Your task to perform on an android device: add a contact in the contacts app Image 0: 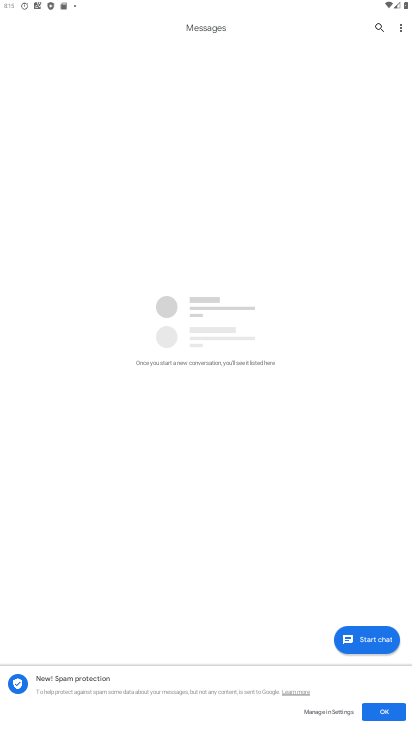
Step 0: drag from (159, 613) to (150, 112)
Your task to perform on an android device: add a contact in the contacts app Image 1: 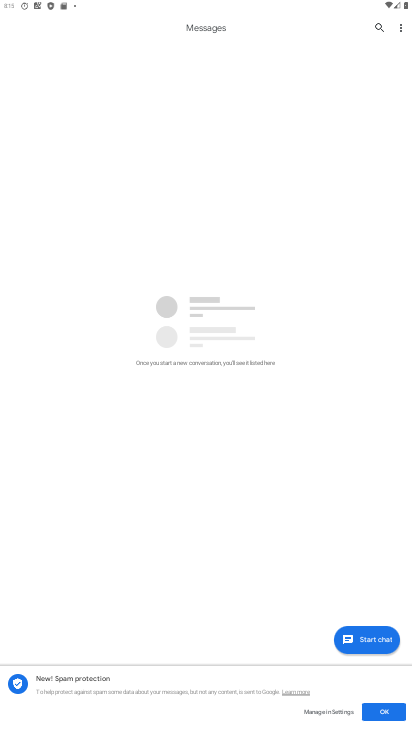
Step 1: click (206, 514)
Your task to perform on an android device: add a contact in the contacts app Image 2: 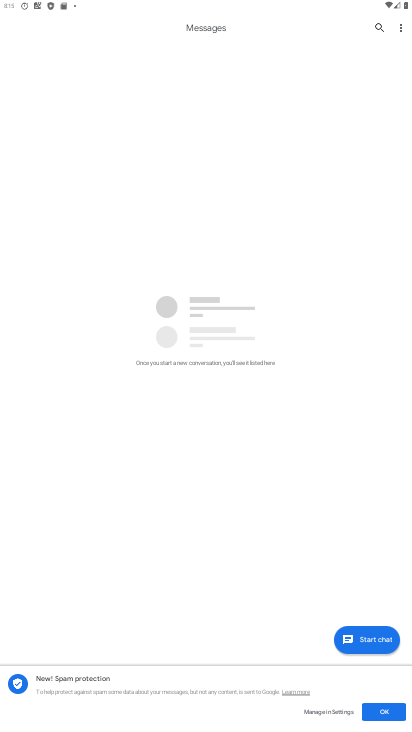
Step 2: drag from (168, 570) to (172, 395)
Your task to perform on an android device: add a contact in the contacts app Image 3: 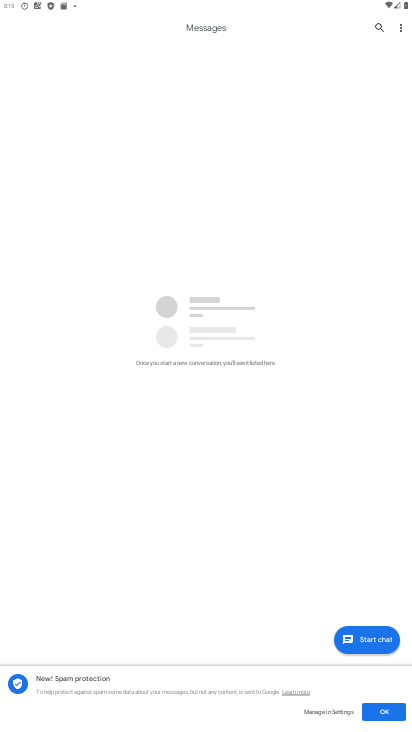
Step 3: drag from (201, 623) to (246, 216)
Your task to perform on an android device: add a contact in the contacts app Image 4: 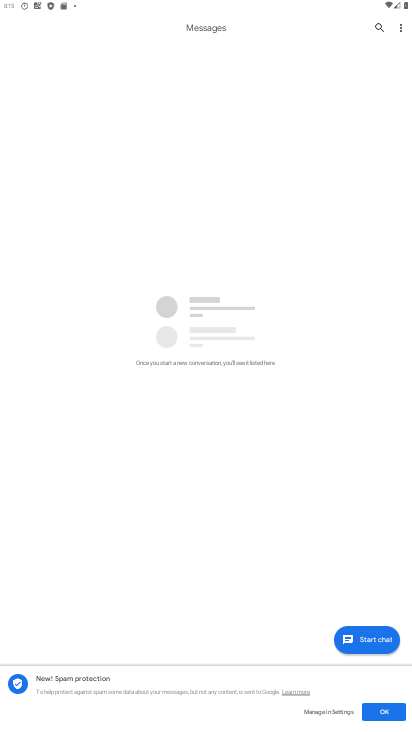
Step 4: drag from (162, 448) to (145, 210)
Your task to perform on an android device: add a contact in the contacts app Image 5: 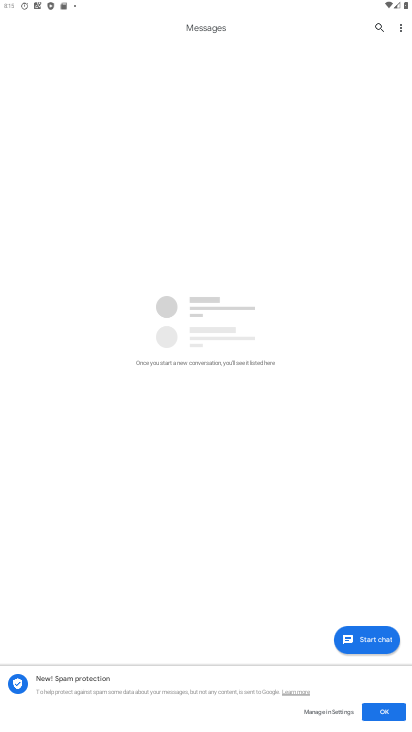
Step 5: press home button
Your task to perform on an android device: add a contact in the contacts app Image 6: 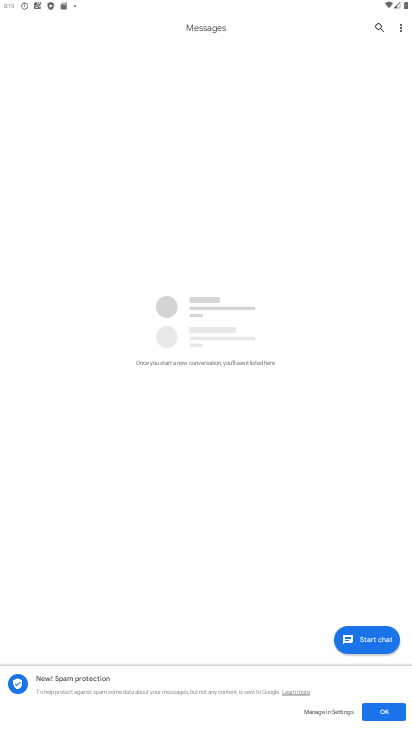
Step 6: press home button
Your task to perform on an android device: add a contact in the contacts app Image 7: 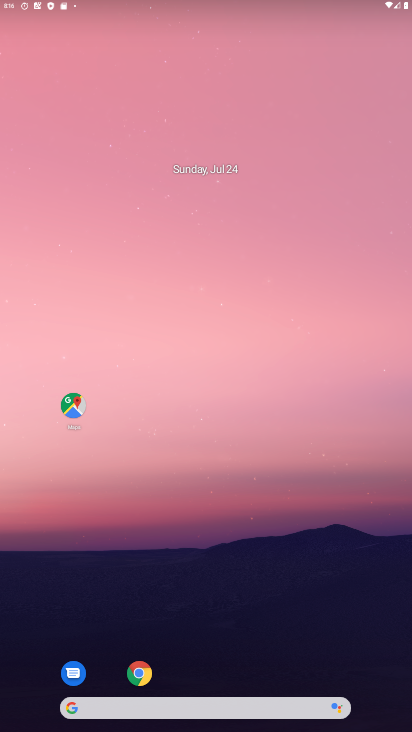
Step 7: drag from (240, 579) to (285, 252)
Your task to perform on an android device: add a contact in the contacts app Image 8: 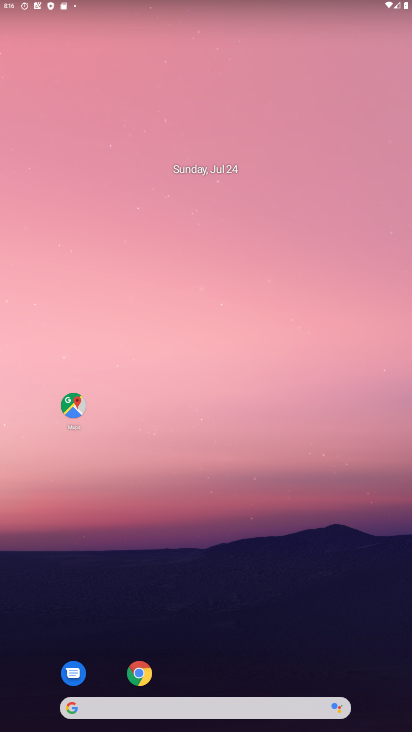
Step 8: drag from (179, 680) to (183, 0)
Your task to perform on an android device: add a contact in the contacts app Image 9: 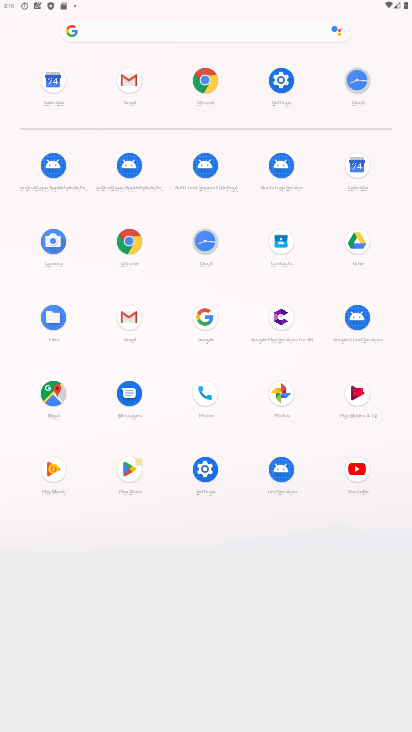
Step 9: click (282, 234)
Your task to perform on an android device: add a contact in the contacts app Image 10: 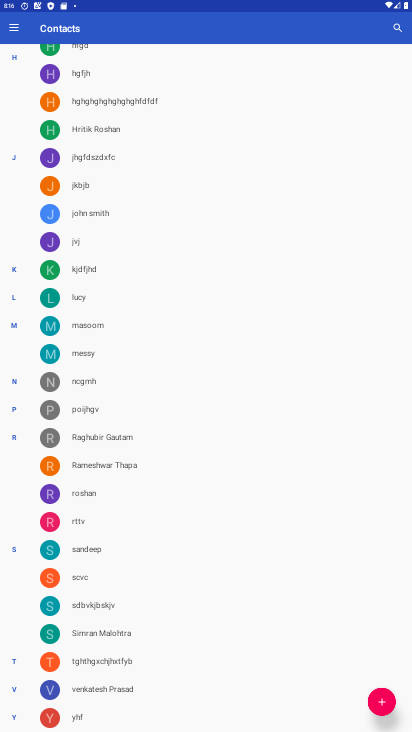
Step 10: drag from (221, 612) to (201, 340)
Your task to perform on an android device: add a contact in the contacts app Image 11: 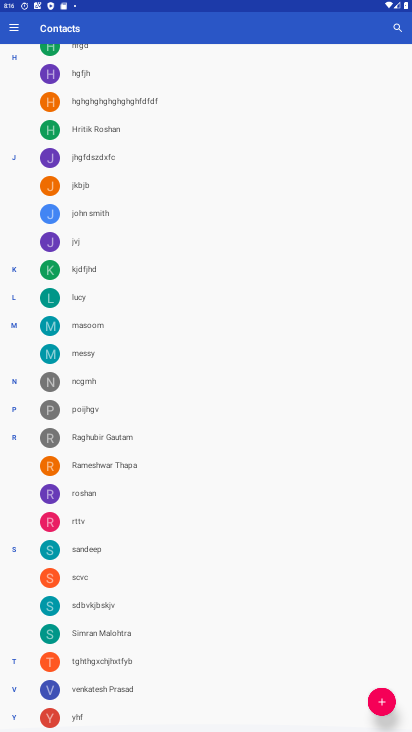
Step 11: drag from (213, 124) to (190, 728)
Your task to perform on an android device: add a contact in the contacts app Image 12: 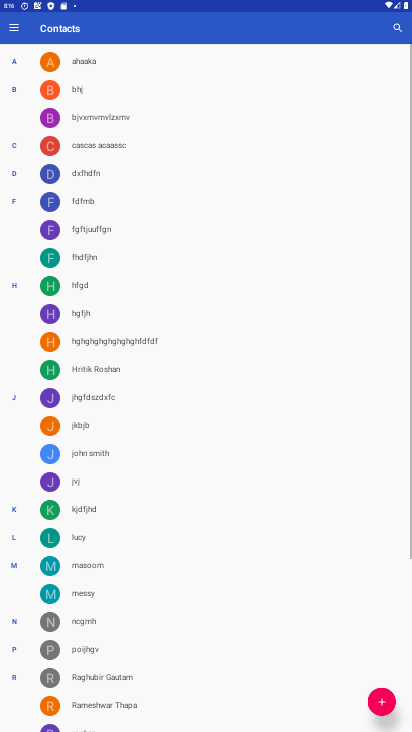
Step 12: drag from (183, 85) to (164, 606)
Your task to perform on an android device: add a contact in the contacts app Image 13: 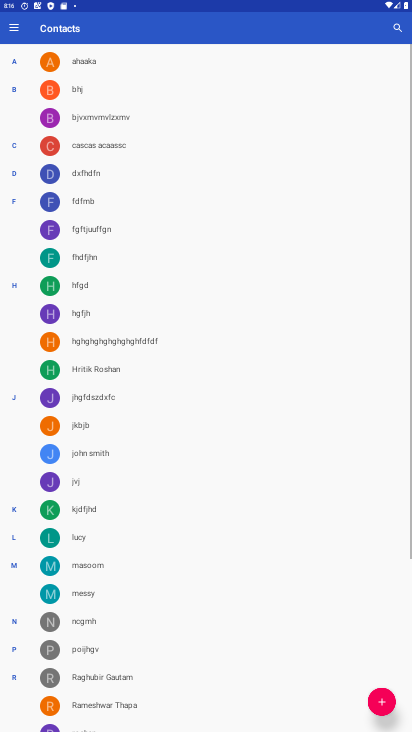
Step 13: drag from (199, 118) to (160, 533)
Your task to perform on an android device: add a contact in the contacts app Image 14: 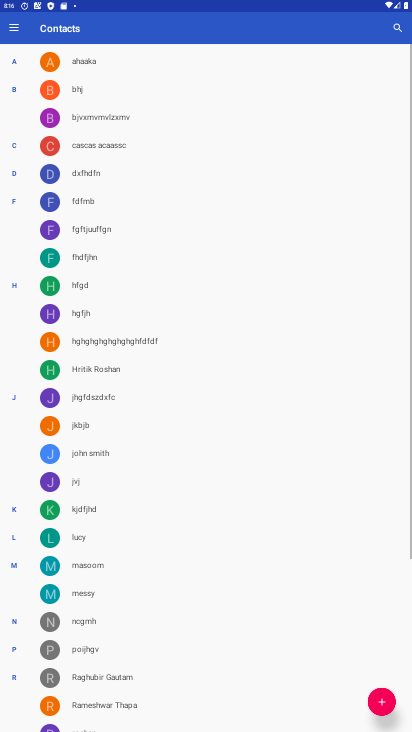
Step 14: drag from (221, 618) to (211, 274)
Your task to perform on an android device: add a contact in the contacts app Image 15: 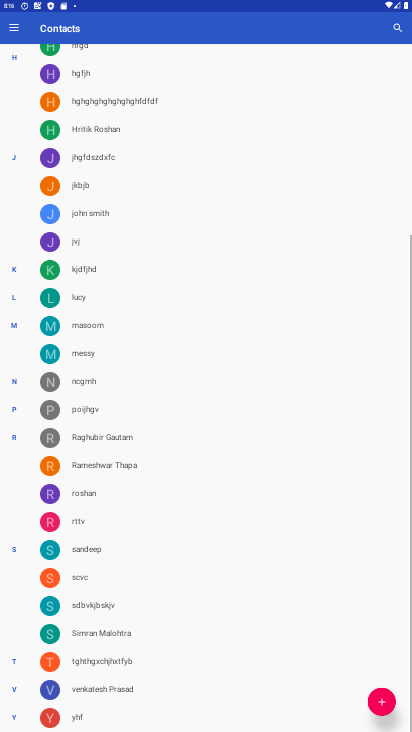
Step 15: drag from (216, 155) to (349, 724)
Your task to perform on an android device: add a contact in the contacts app Image 16: 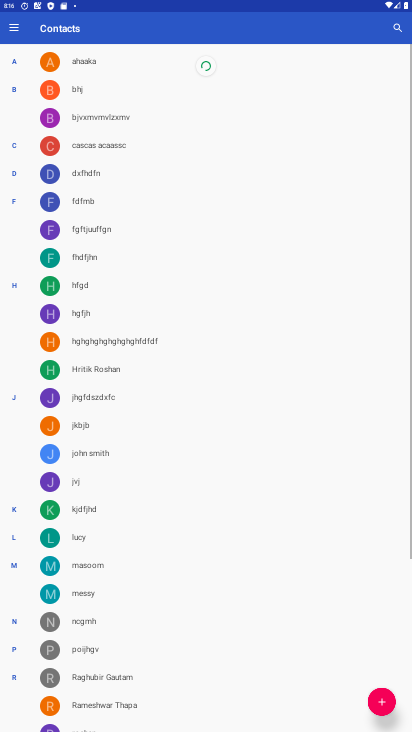
Step 16: drag from (206, 514) to (239, 172)
Your task to perform on an android device: add a contact in the contacts app Image 17: 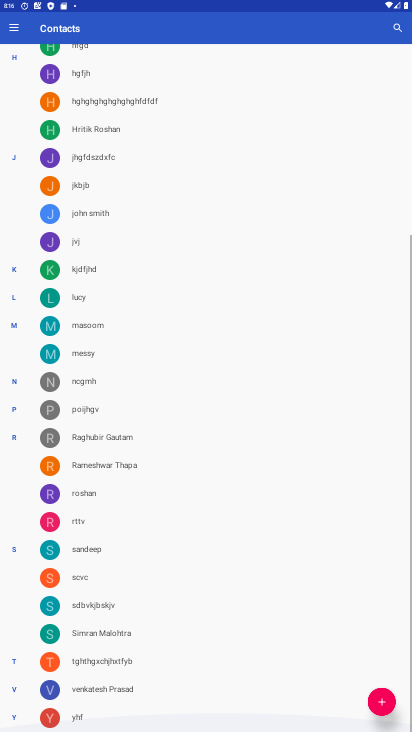
Step 17: drag from (243, 157) to (333, 731)
Your task to perform on an android device: add a contact in the contacts app Image 18: 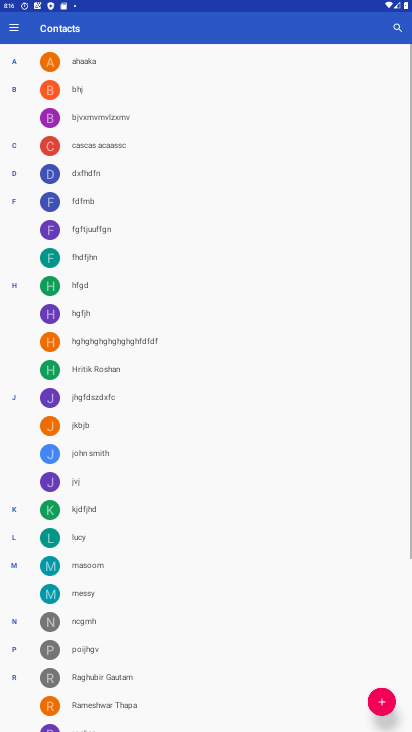
Step 18: drag from (162, 218) to (235, 679)
Your task to perform on an android device: add a contact in the contacts app Image 19: 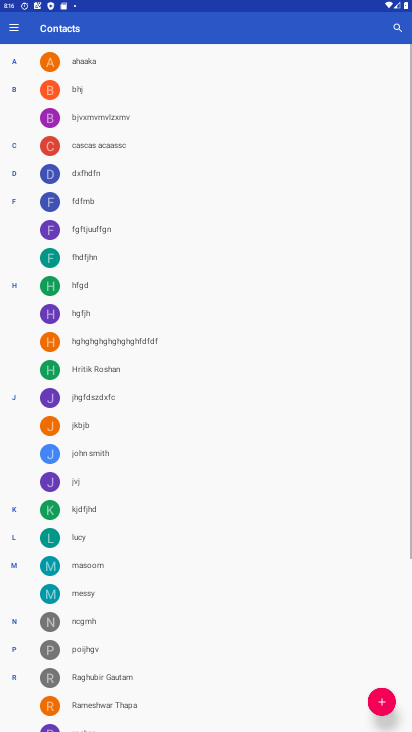
Step 19: drag from (149, 121) to (152, 619)
Your task to perform on an android device: add a contact in the contacts app Image 20: 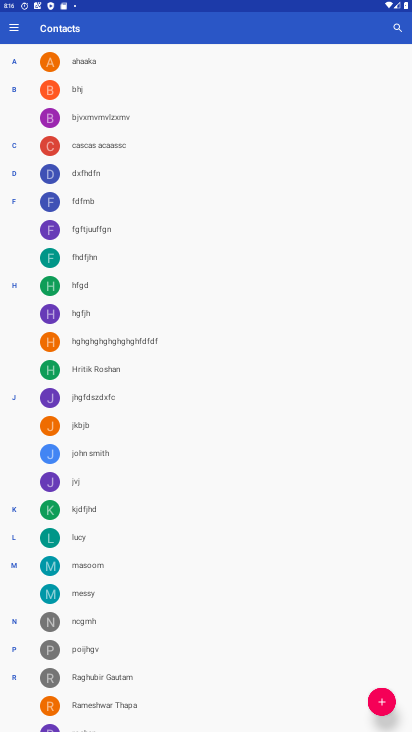
Step 20: drag from (206, 233) to (272, 729)
Your task to perform on an android device: add a contact in the contacts app Image 21: 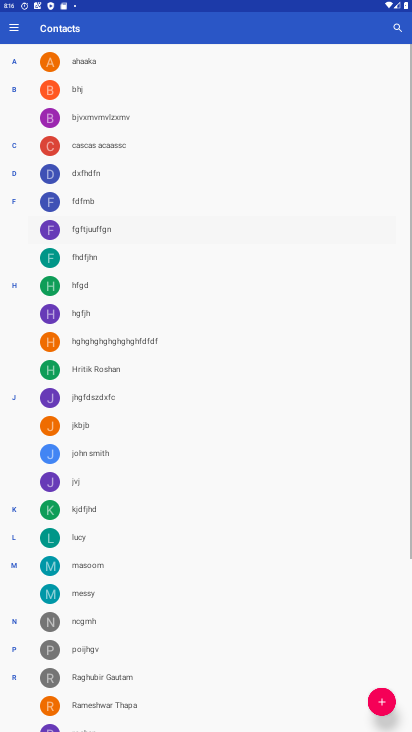
Step 21: drag from (203, 690) to (286, 262)
Your task to perform on an android device: add a contact in the contacts app Image 22: 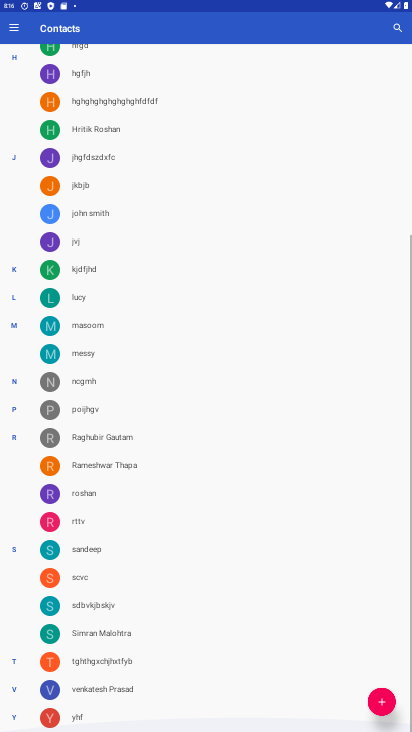
Step 22: drag from (209, 287) to (231, 728)
Your task to perform on an android device: add a contact in the contacts app Image 23: 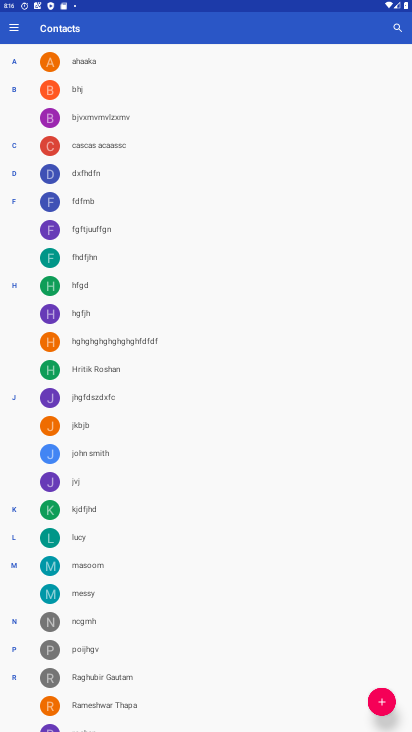
Step 23: click (386, 698)
Your task to perform on an android device: add a contact in the contacts app Image 24: 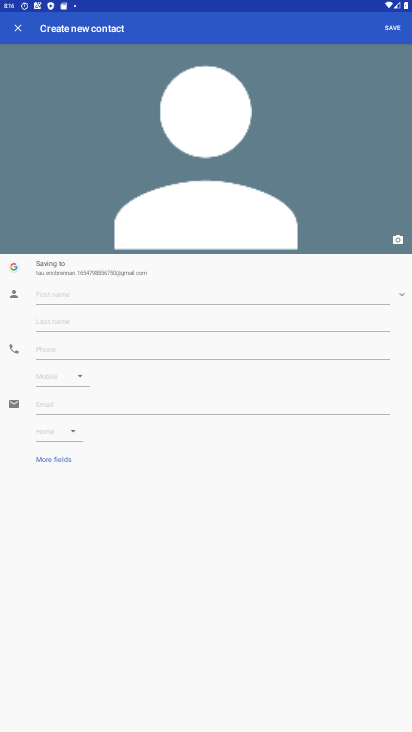
Step 24: click (88, 291)
Your task to perform on an android device: add a contact in the contacts app Image 25: 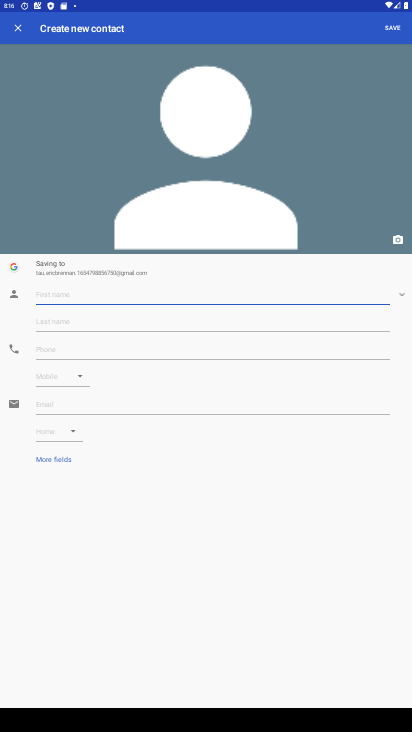
Step 25: type "mhhvhjm"
Your task to perform on an android device: add a contact in the contacts app Image 26: 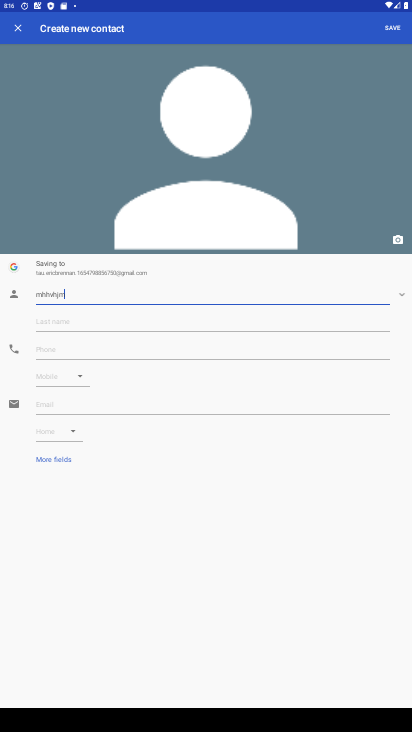
Step 26: click (70, 351)
Your task to perform on an android device: add a contact in the contacts app Image 27: 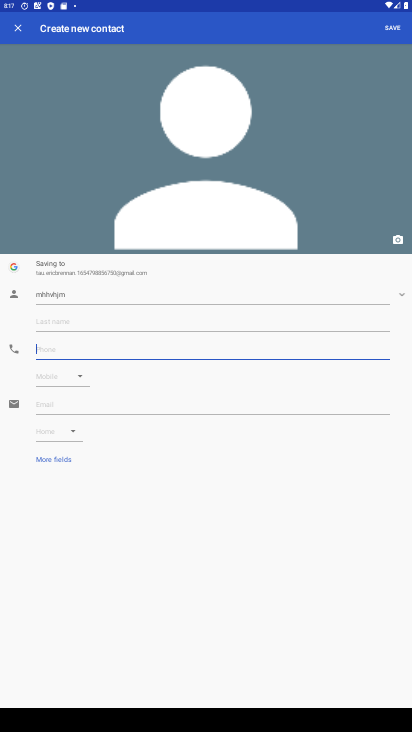
Step 27: type "868588649"
Your task to perform on an android device: add a contact in the contacts app Image 28: 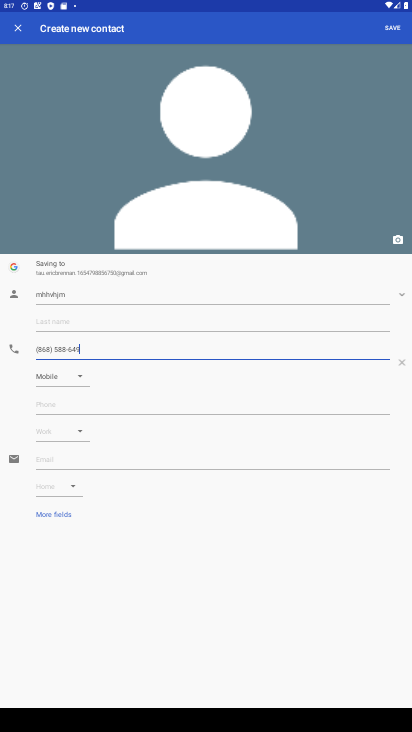
Step 28: click (373, 25)
Your task to perform on an android device: add a contact in the contacts app Image 29: 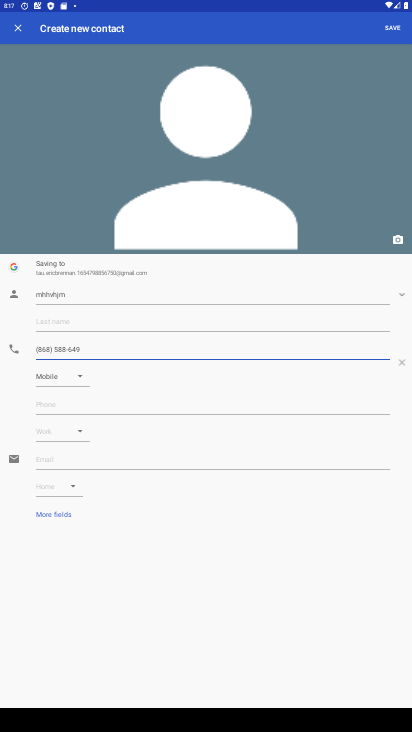
Step 29: click (384, 25)
Your task to perform on an android device: add a contact in the contacts app Image 30: 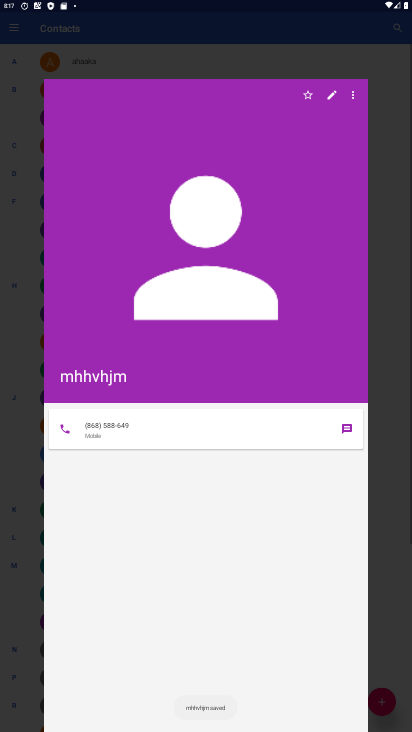
Step 30: task complete